Your task to perform on an android device: open device folders in google photos Image 0: 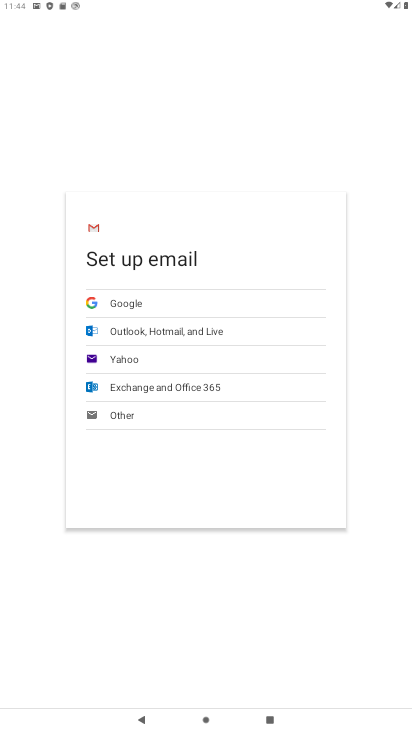
Step 0: press home button
Your task to perform on an android device: open device folders in google photos Image 1: 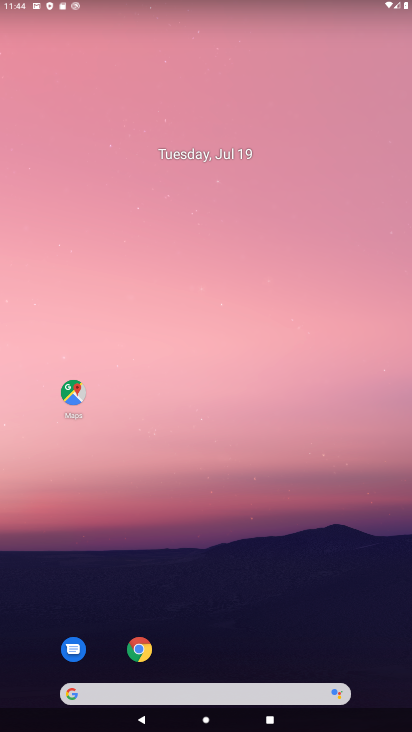
Step 1: drag from (185, 667) to (182, 37)
Your task to perform on an android device: open device folders in google photos Image 2: 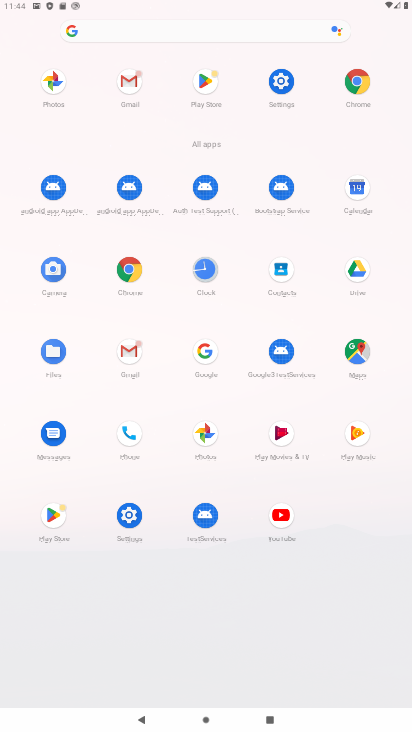
Step 2: click (200, 445)
Your task to perform on an android device: open device folders in google photos Image 3: 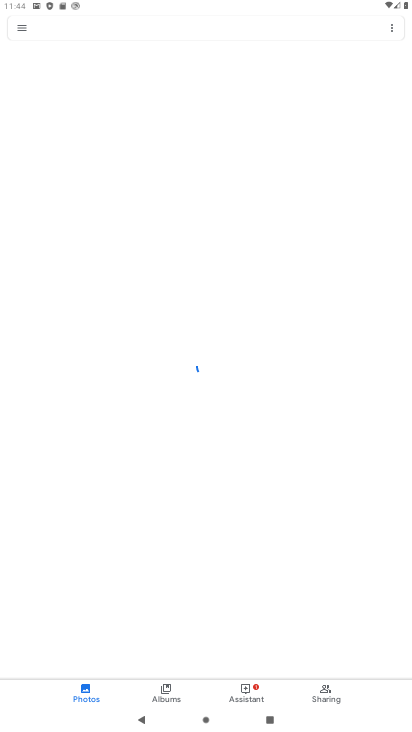
Step 3: click (25, 26)
Your task to perform on an android device: open device folders in google photos Image 4: 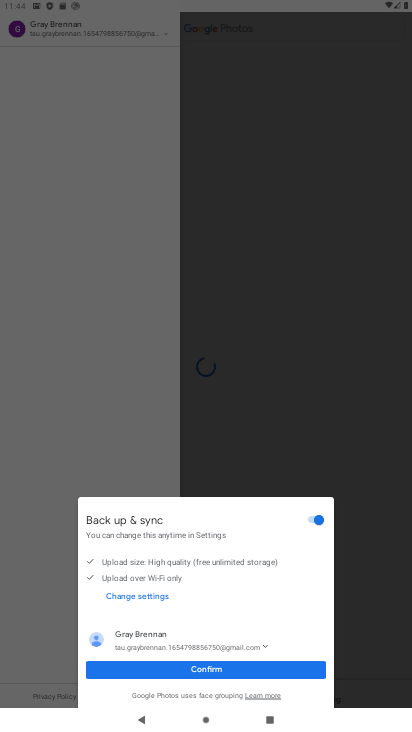
Step 4: click (174, 662)
Your task to perform on an android device: open device folders in google photos Image 5: 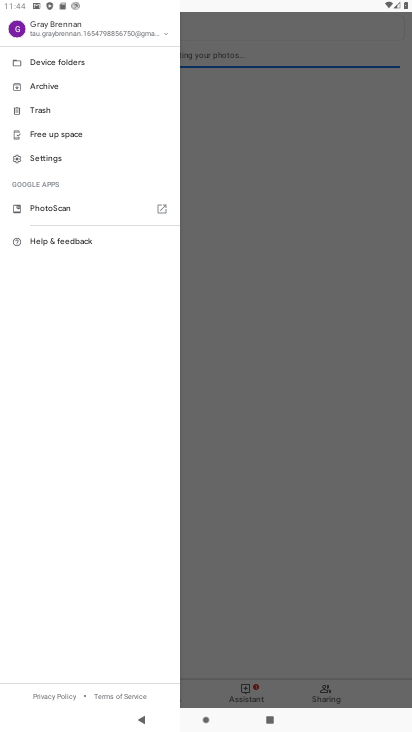
Step 5: click (55, 64)
Your task to perform on an android device: open device folders in google photos Image 6: 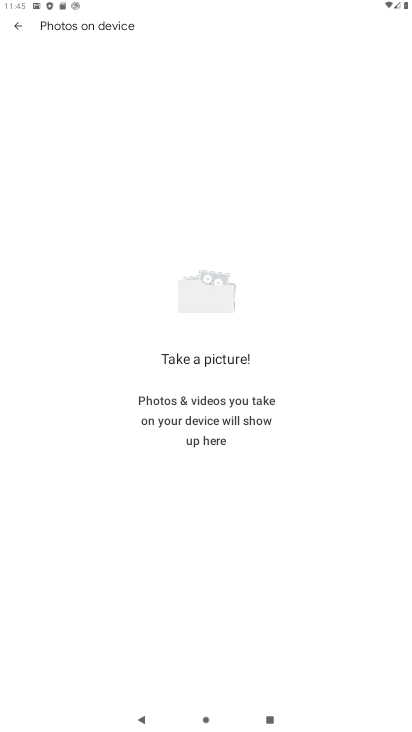
Step 6: task complete